Your task to perform on an android device: Go to Reddit.com Image 0: 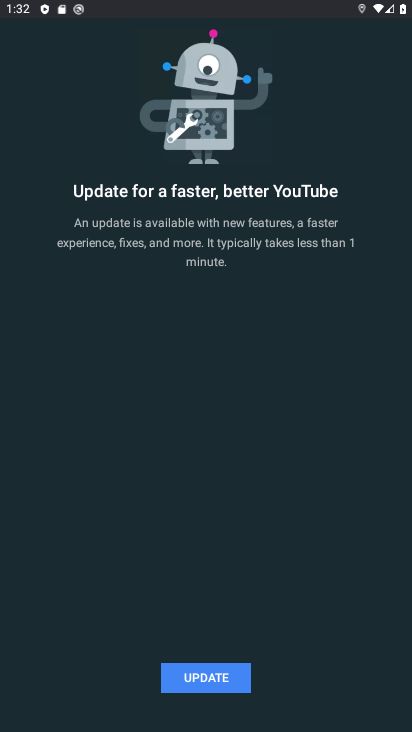
Step 0: press home button
Your task to perform on an android device: Go to Reddit.com Image 1: 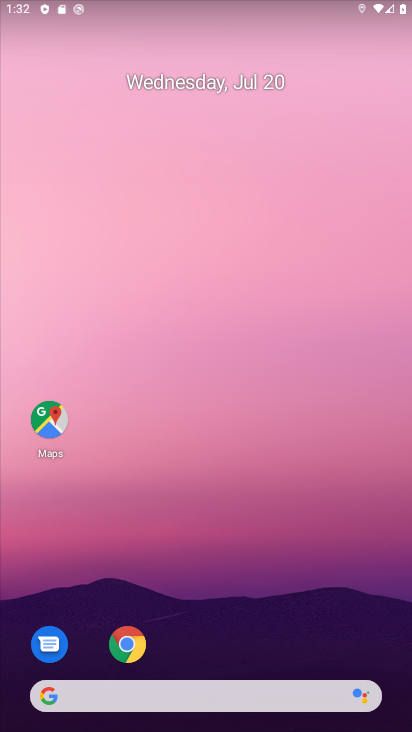
Step 1: click (150, 641)
Your task to perform on an android device: Go to Reddit.com Image 2: 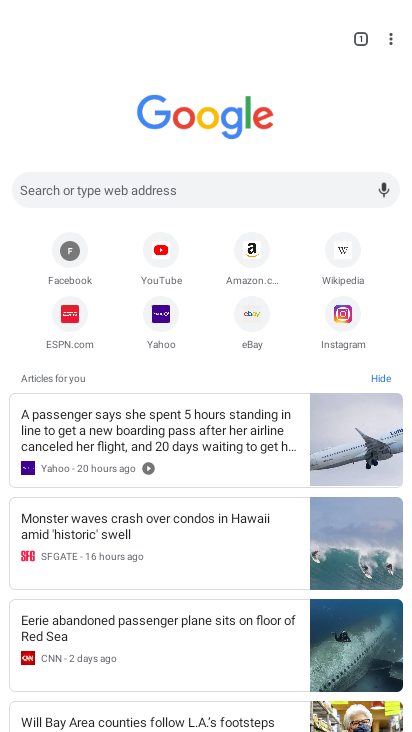
Step 2: click (249, 191)
Your task to perform on an android device: Go to Reddit.com Image 3: 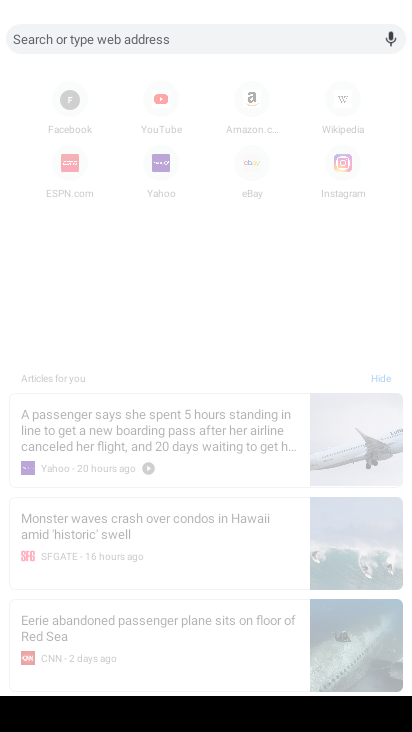
Step 3: type "Reddit.com"
Your task to perform on an android device: Go to Reddit.com Image 4: 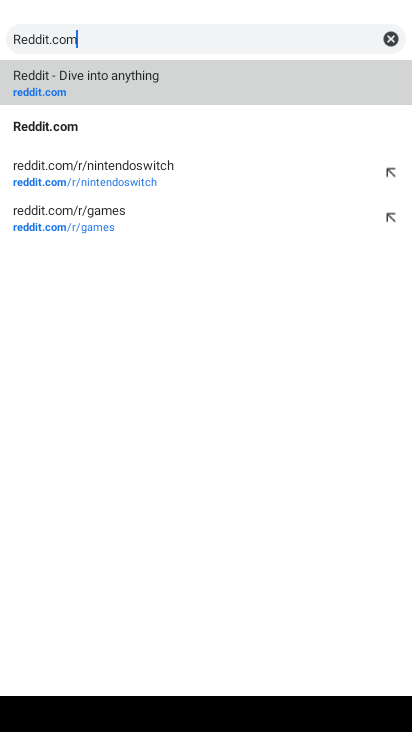
Step 4: click (304, 89)
Your task to perform on an android device: Go to Reddit.com Image 5: 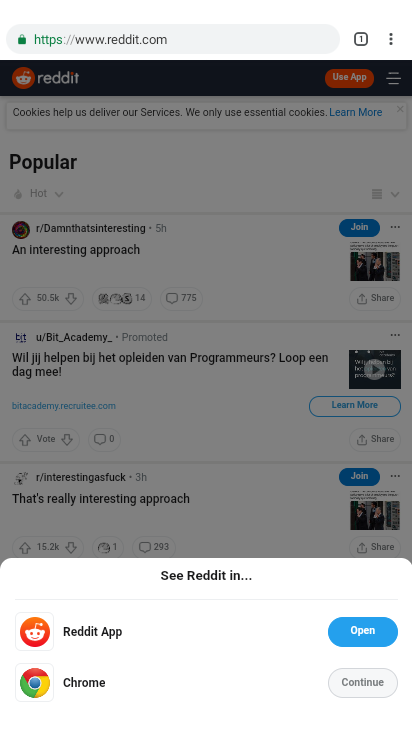
Step 5: task complete